Your task to perform on an android device: Open notification settings Image 0: 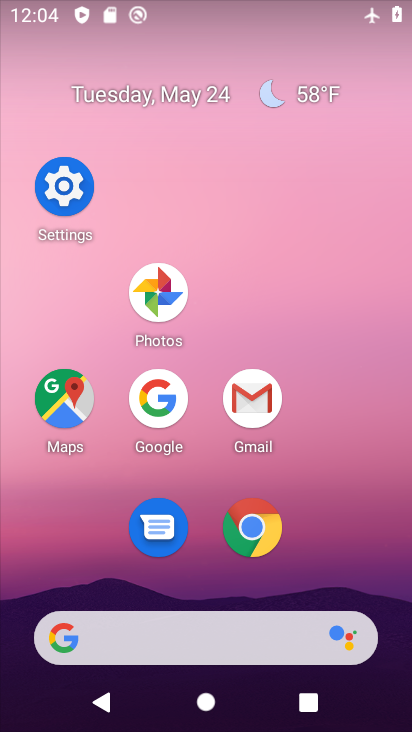
Step 0: click (82, 181)
Your task to perform on an android device: Open notification settings Image 1: 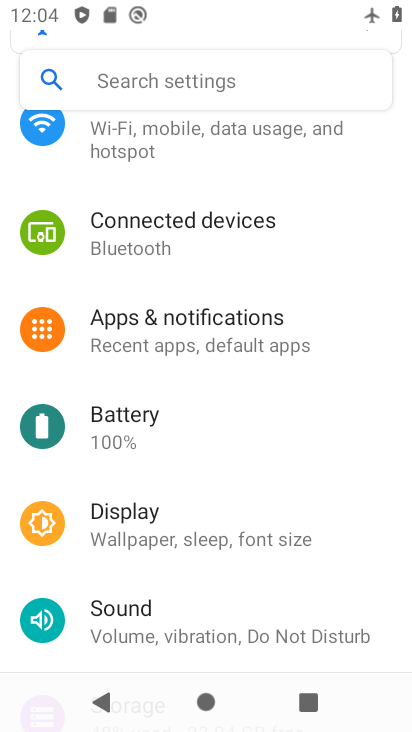
Step 1: drag from (286, 214) to (274, 592)
Your task to perform on an android device: Open notification settings Image 2: 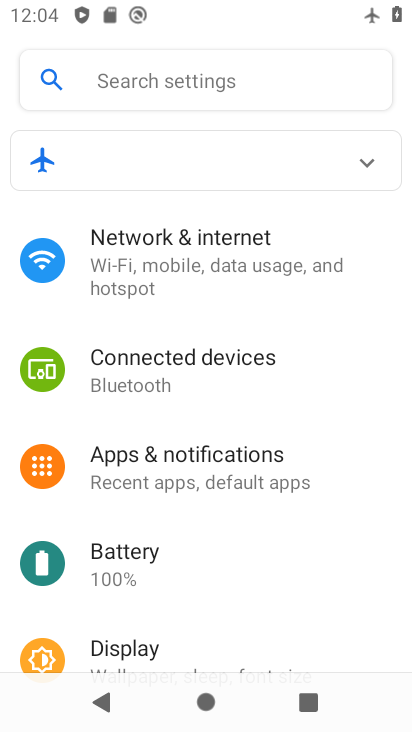
Step 2: click (271, 474)
Your task to perform on an android device: Open notification settings Image 3: 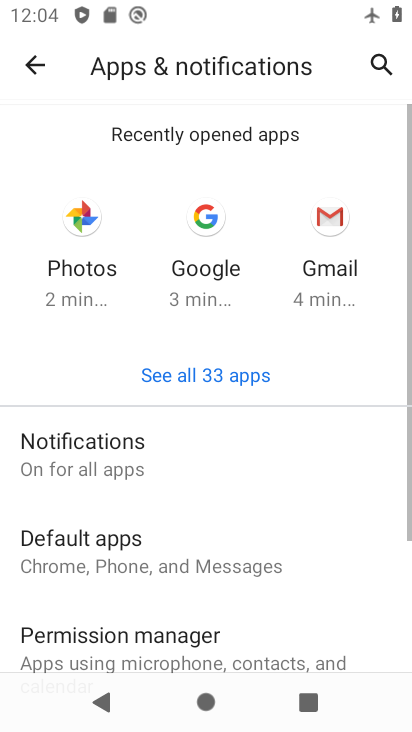
Step 3: task complete